Your task to perform on an android device: Show me popular videos on Youtube Image 0: 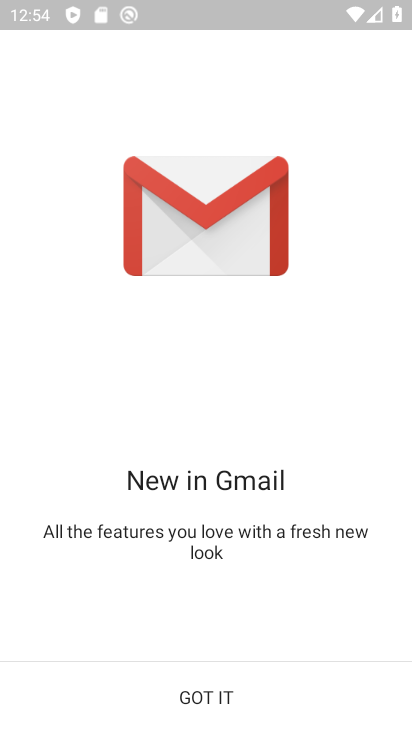
Step 0: press home button
Your task to perform on an android device: Show me popular videos on Youtube Image 1: 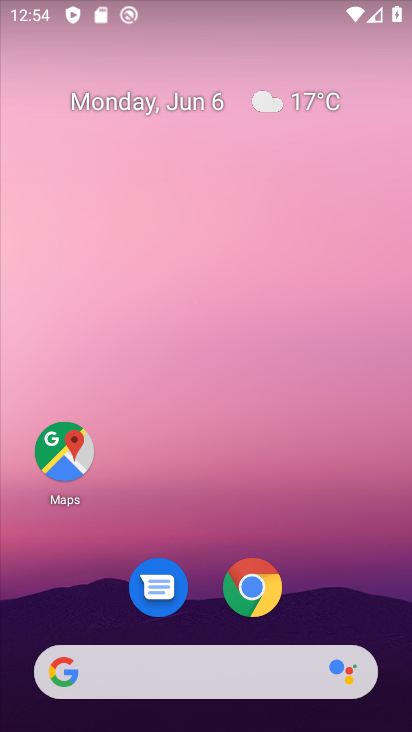
Step 1: drag from (207, 609) to (226, 325)
Your task to perform on an android device: Show me popular videos on Youtube Image 2: 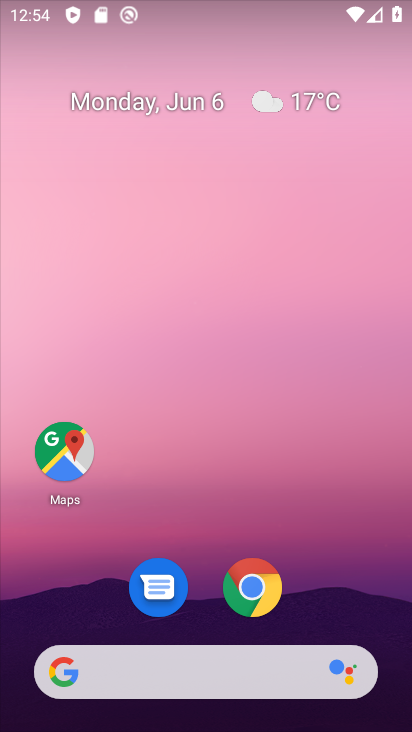
Step 2: drag from (193, 616) to (224, 213)
Your task to perform on an android device: Show me popular videos on Youtube Image 3: 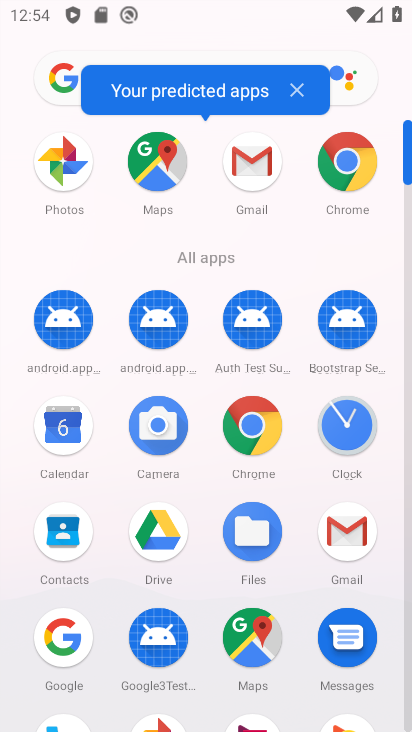
Step 3: drag from (218, 583) to (212, 369)
Your task to perform on an android device: Show me popular videos on Youtube Image 4: 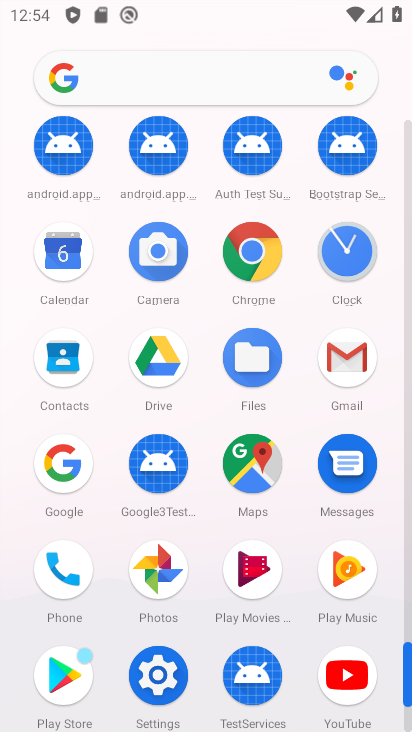
Step 4: click (353, 672)
Your task to perform on an android device: Show me popular videos on Youtube Image 5: 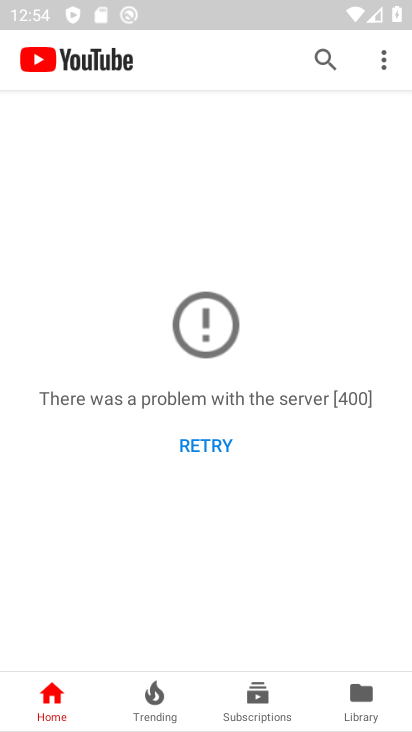
Step 5: click (194, 450)
Your task to perform on an android device: Show me popular videos on Youtube Image 6: 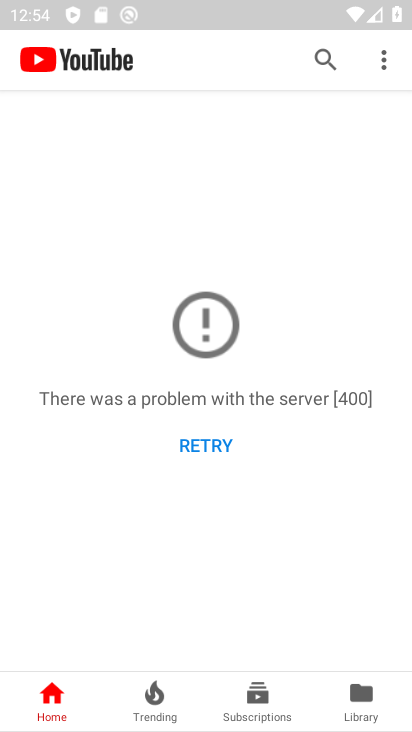
Step 6: click (195, 448)
Your task to perform on an android device: Show me popular videos on Youtube Image 7: 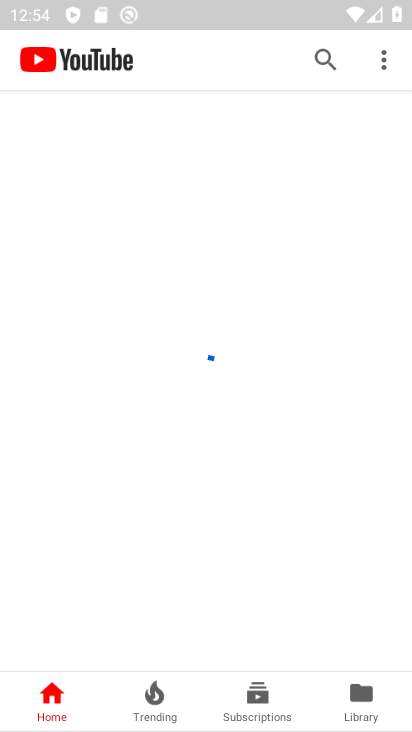
Step 7: click (195, 448)
Your task to perform on an android device: Show me popular videos on Youtube Image 8: 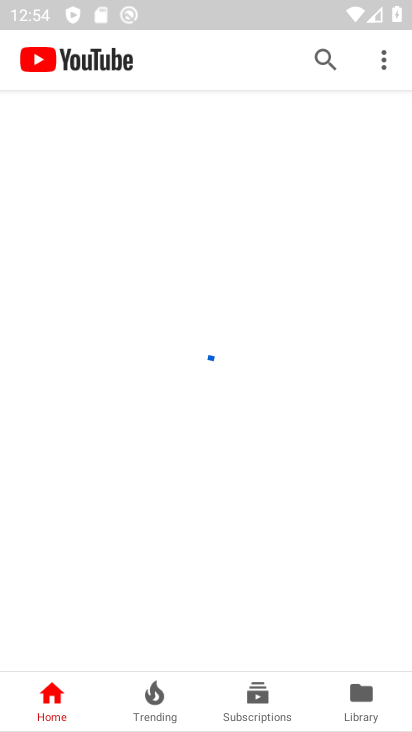
Step 8: click (195, 448)
Your task to perform on an android device: Show me popular videos on Youtube Image 9: 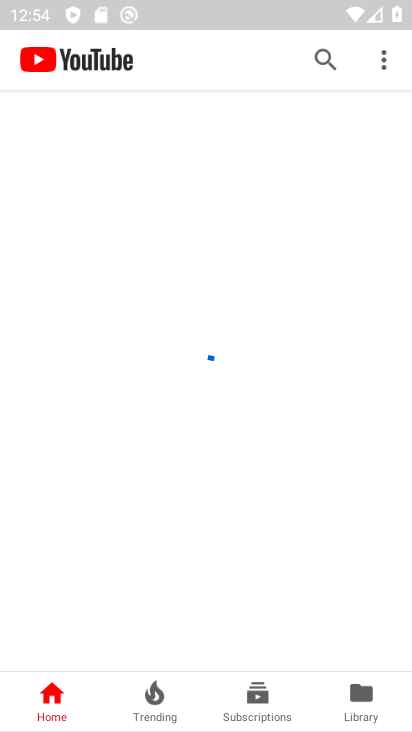
Step 9: click (197, 450)
Your task to perform on an android device: Show me popular videos on Youtube Image 10: 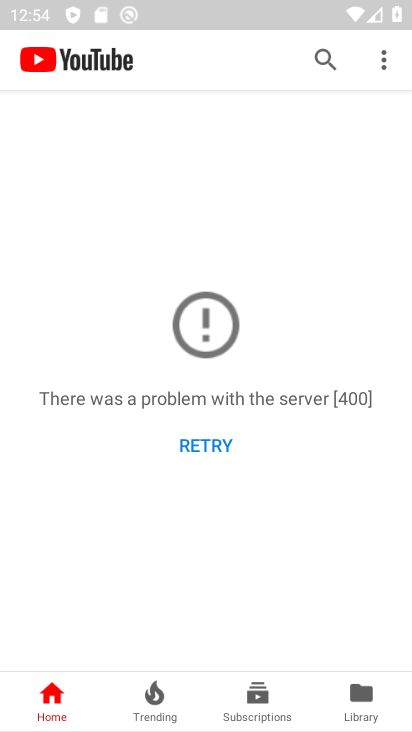
Step 10: task complete